Your task to perform on an android device: Search for seafood restaurants on Google Maps Image 0: 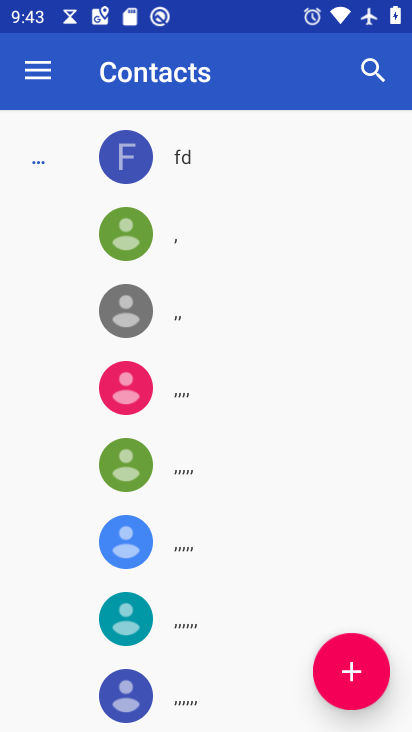
Step 0: press home button
Your task to perform on an android device: Search for seafood restaurants on Google Maps Image 1: 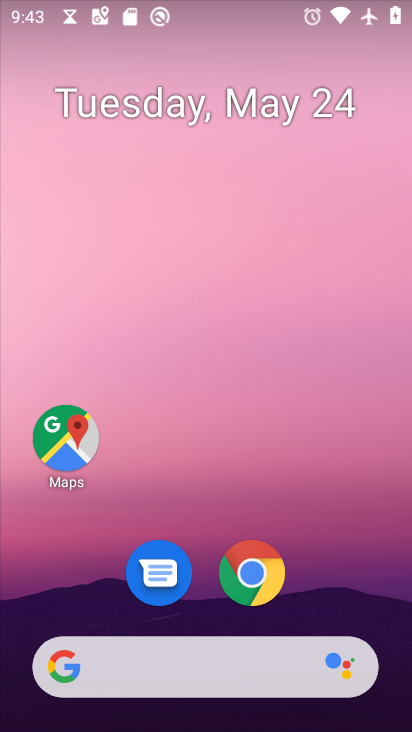
Step 1: drag from (377, 575) to (332, 9)
Your task to perform on an android device: Search for seafood restaurants on Google Maps Image 2: 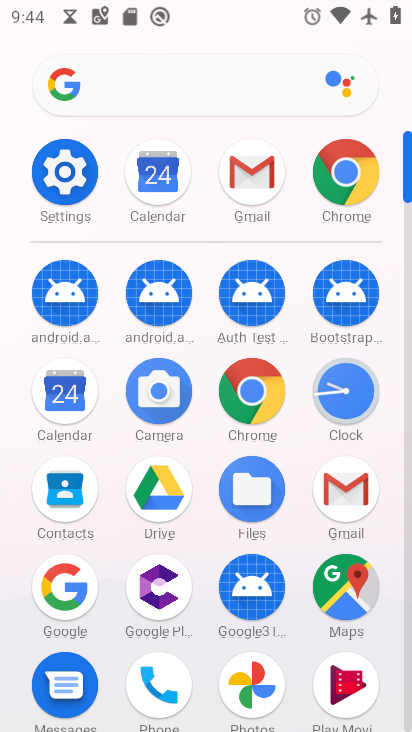
Step 2: drag from (392, 641) to (328, 339)
Your task to perform on an android device: Search for seafood restaurants on Google Maps Image 3: 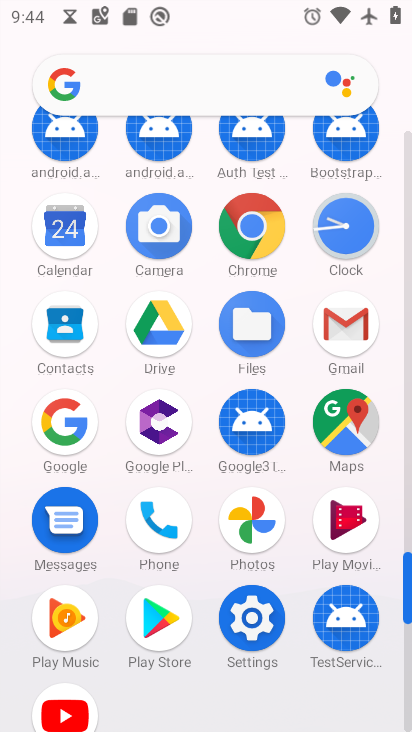
Step 3: click (365, 416)
Your task to perform on an android device: Search for seafood restaurants on Google Maps Image 4: 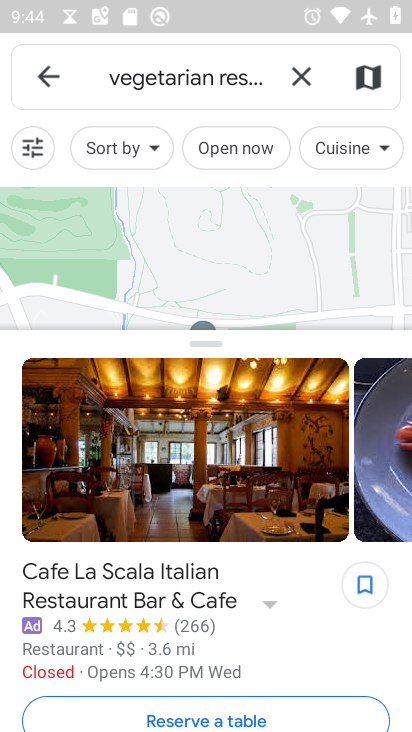
Step 4: click (294, 72)
Your task to perform on an android device: Search for seafood restaurants on Google Maps Image 5: 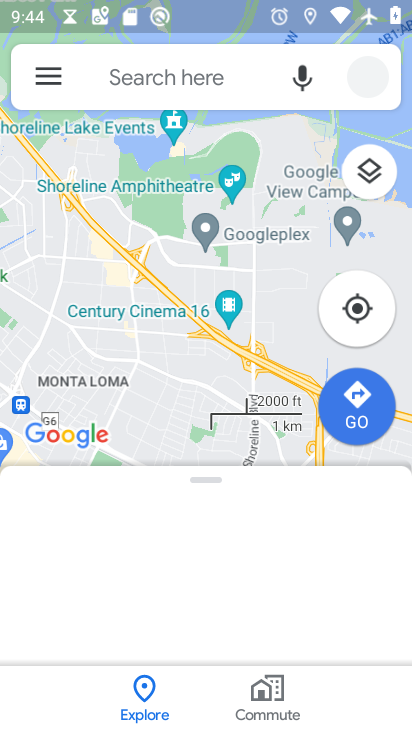
Step 5: click (156, 86)
Your task to perform on an android device: Search for seafood restaurants on Google Maps Image 6: 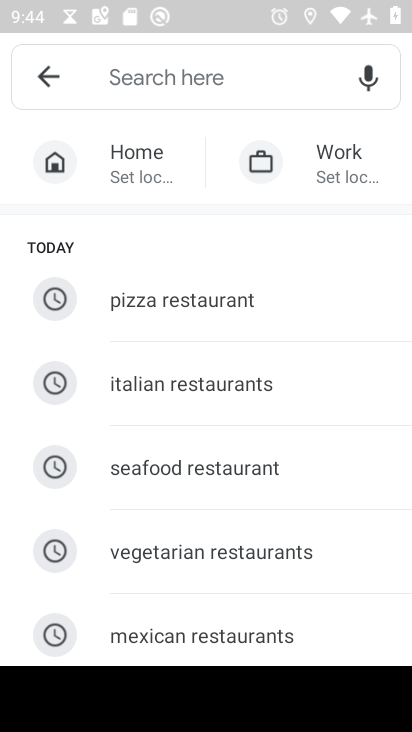
Step 6: click (174, 472)
Your task to perform on an android device: Search for seafood restaurants on Google Maps Image 7: 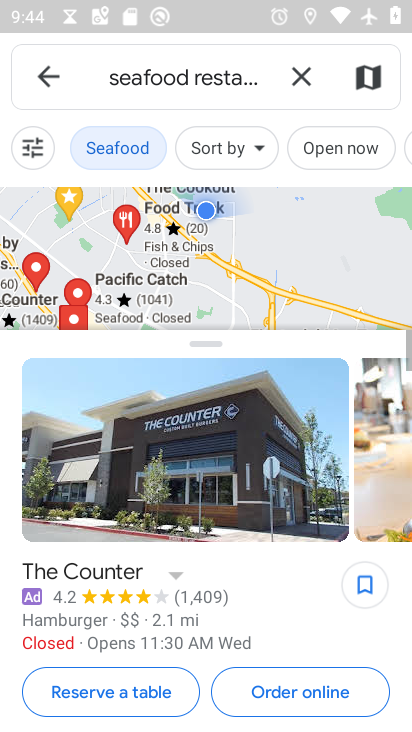
Step 7: task complete